Your task to perform on an android device: Open location settings Image 0: 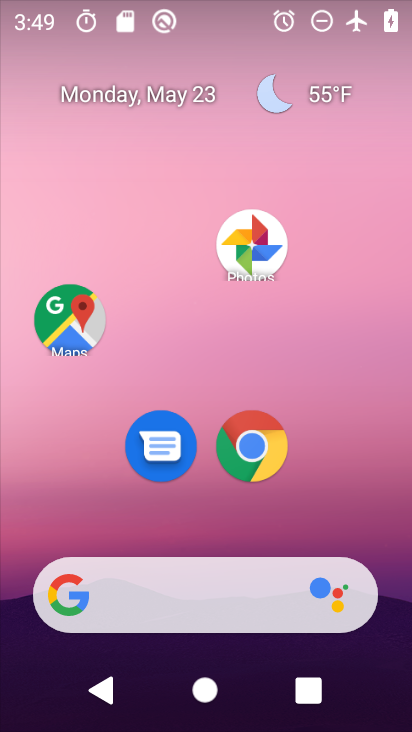
Step 0: drag from (214, 527) to (214, 183)
Your task to perform on an android device: Open location settings Image 1: 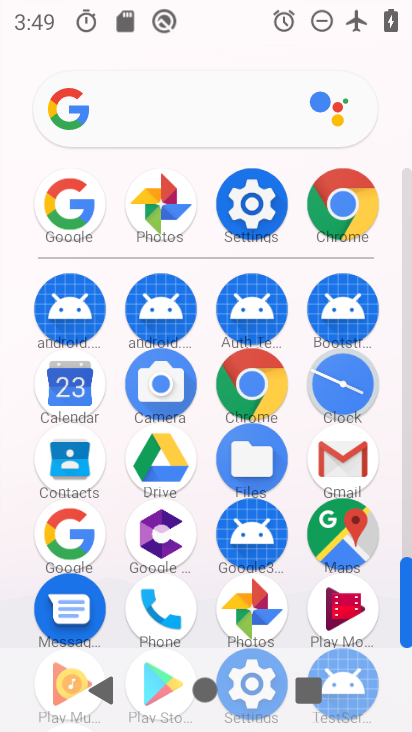
Step 1: click (235, 197)
Your task to perform on an android device: Open location settings Image 2: 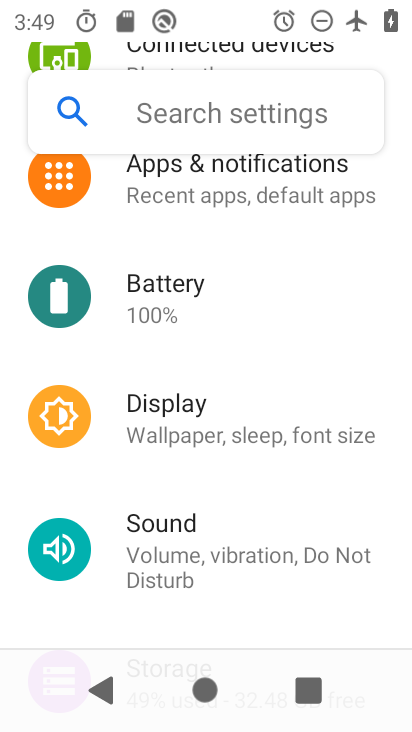
Step 2: drag from (240, 560) to (225, 214)
Your task to perform on an android device: Open location settings Image 3: 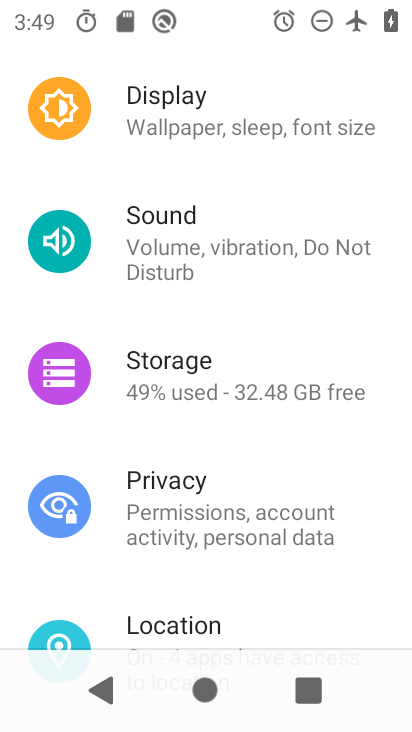
Step 3: click (223, 618)
Your task to perform on an android device: Open location settings Image 4: 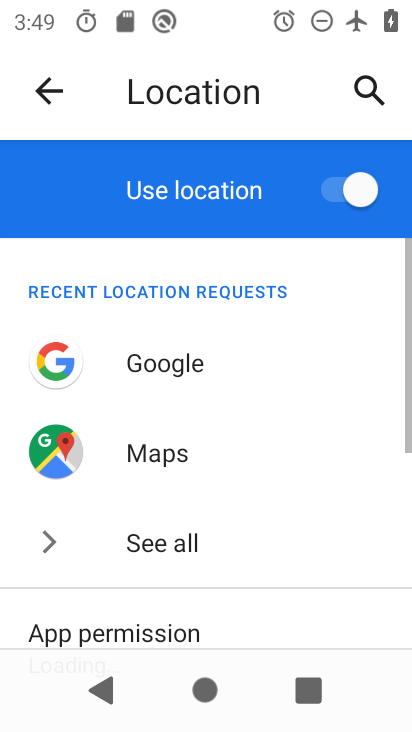
Step 4: task complete